Your task to perform on an android device: Open CNN.com Image 0: 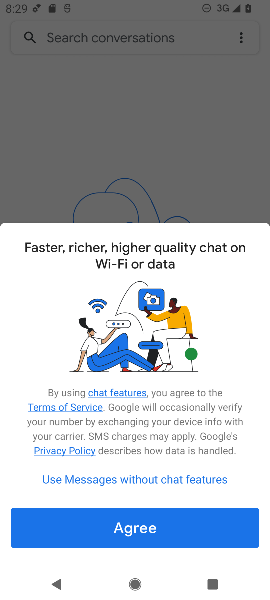
Step 0: press home button
Your task to perform on an android device: Open CNN.com Image 1: 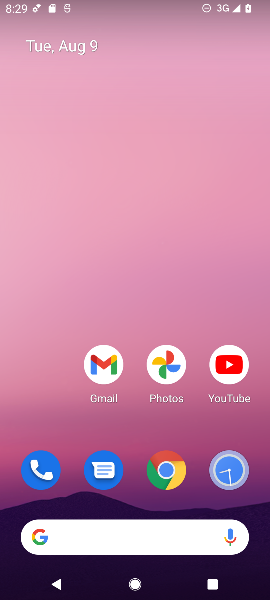
Step 1: click (165, 471)
Your task to perform on an android device: Open CNN.com Image 2: 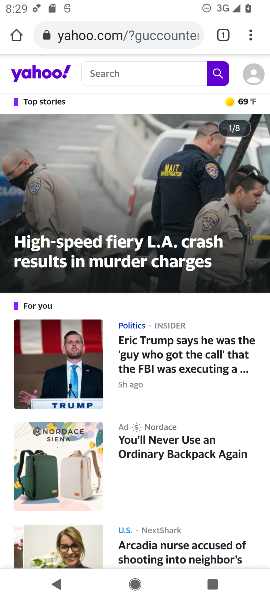
Step 2: click (161, 35)
Your task to perform on an android device: Open CNN.com Image 3: 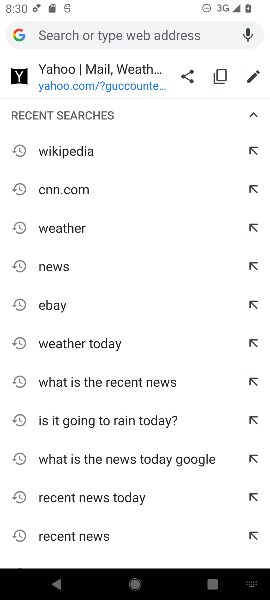
Step 3: type "CNN.com"
Your task to perform on an android device: Open CNN.com Image 4: 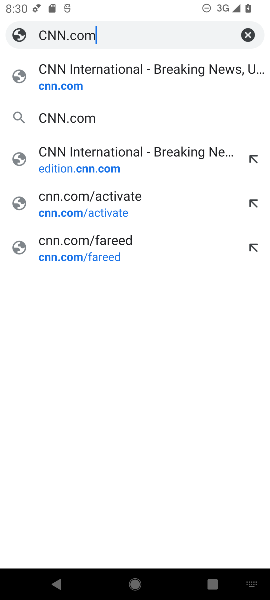
Step 4: click (79, 110)
Your task to perform on an android device: Open CNN.com Image 5: 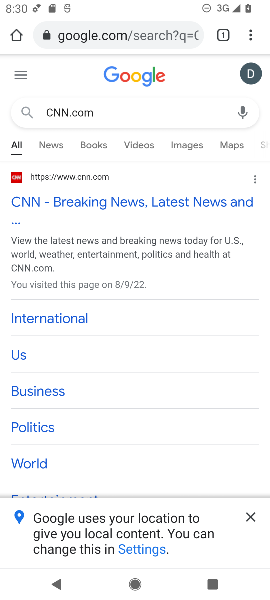
Step 5: click (116, 200)
Your task to perform on an android device: Open CNN.com Image 6: 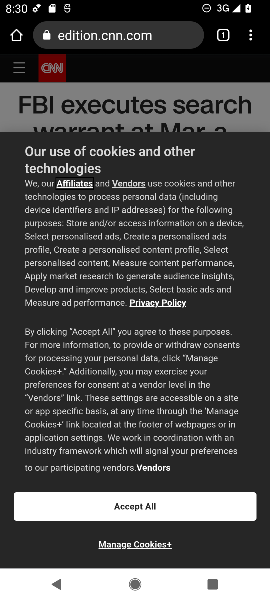
Step 6: click (130, 509)
Your task to perform on an android device: Open CNN.com Image 7: 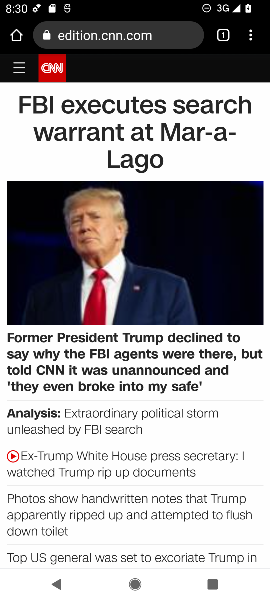
Step 7: task complete